Your task to perform on an android device: Open Chrome and go to the settings page Image 0: 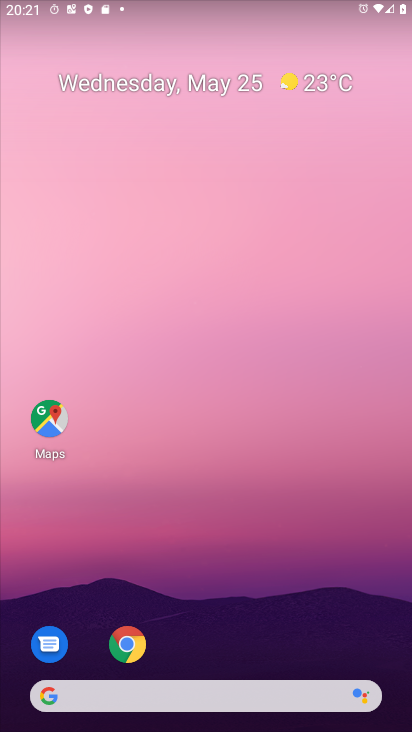
Step 0: drag from (269, 707) to (224, 125)
Your task to perform on an android device: Open Chrome and go to the settings page Image 1: 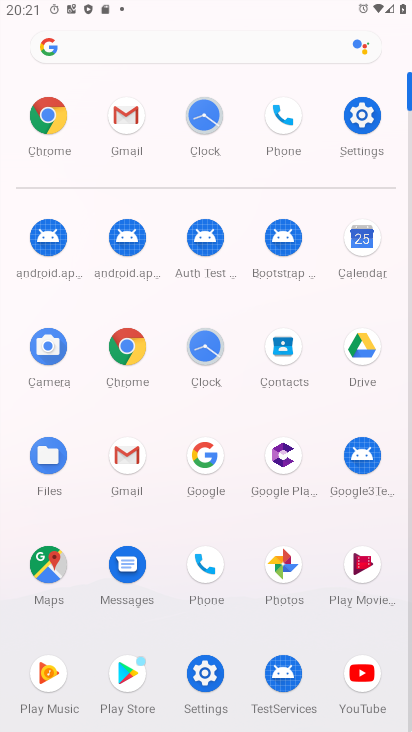
Step 1: click (51, 130)
Your task to perform on an android device: Open Chrome and go to the settings page Image 2: 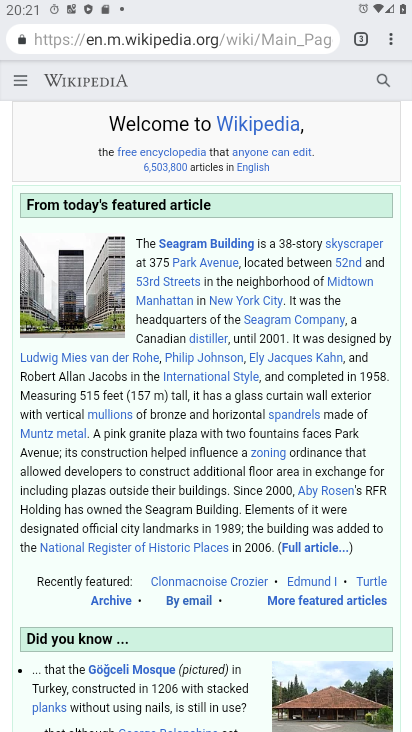
Step 2: click (387, 44)
Your task to perform on an android device: Open Chrome and go to the settings page Image 3: 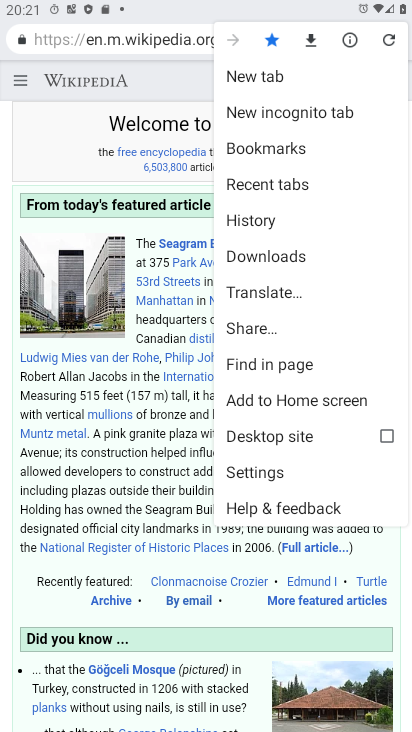
Step 3: click (292, 466)
Your task to perform on an android device: Open Chrome and go to the settings page Image 4: 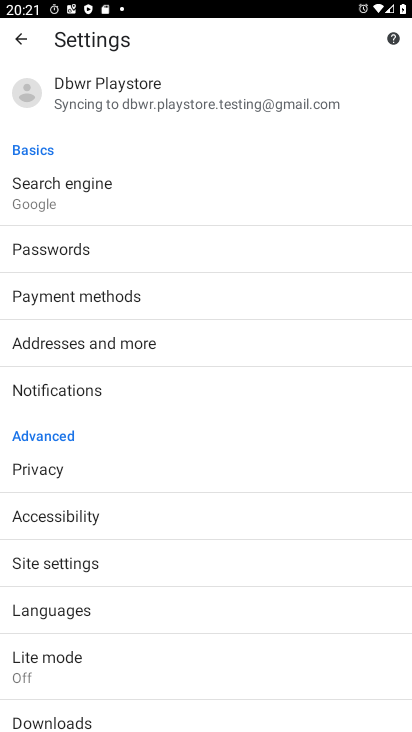
Step 4: task complete